Your task to perform on an android device: Empty the shopping cart on target.com. Search for "dell xps" on target.com, select the first entry, add it to the cart, then select checkout. Image 0: 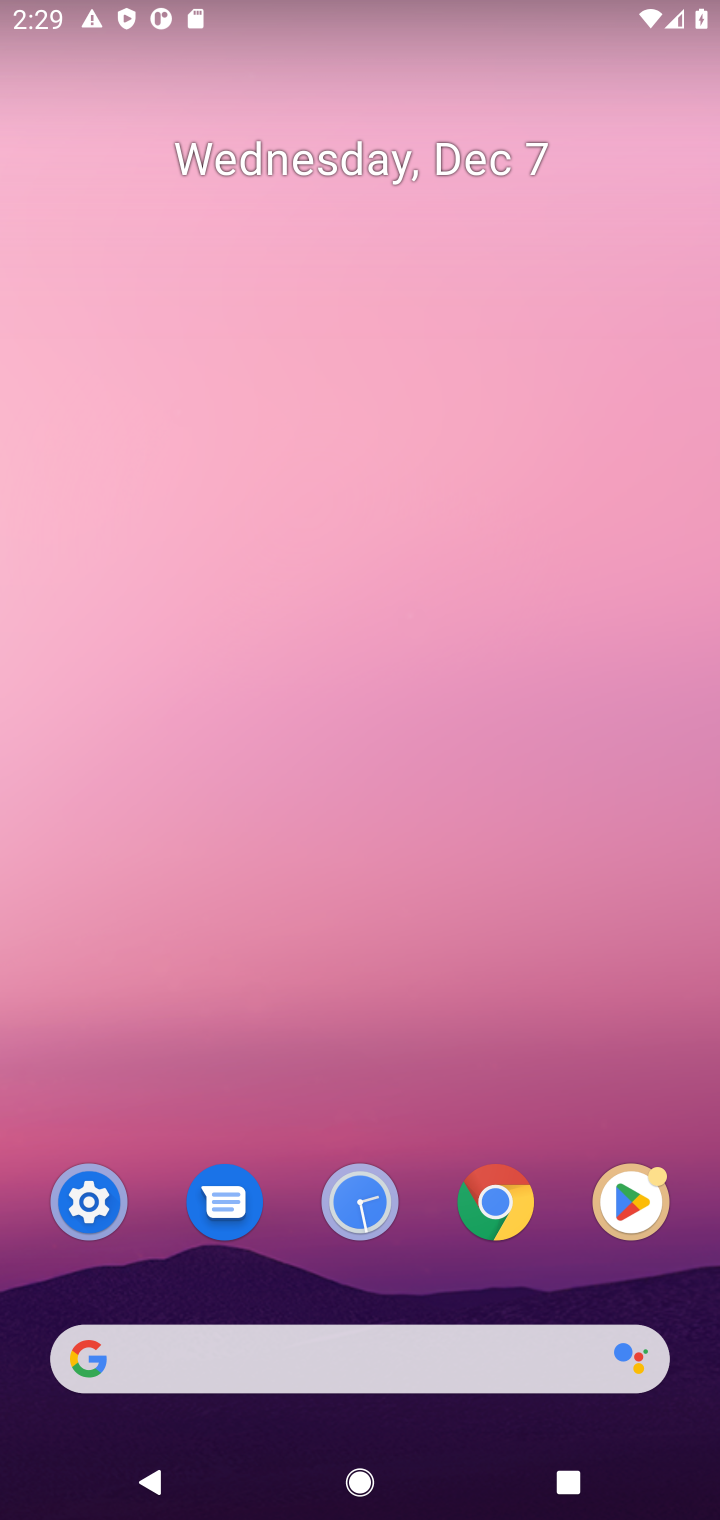
Step 0: task complete